Your task to perform on an android device: make emails show in primary in the gmail app Image 0: 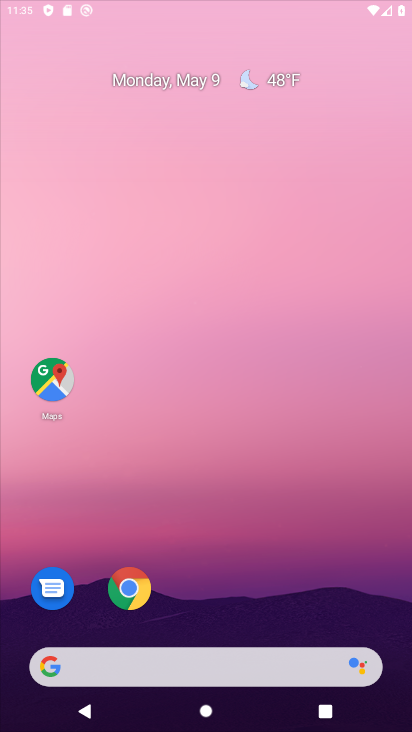
Step 0: drag from (227, 555) to (218, 273)
Your task to perform on an android device: make emails show in primary in the gmail app Image 1: 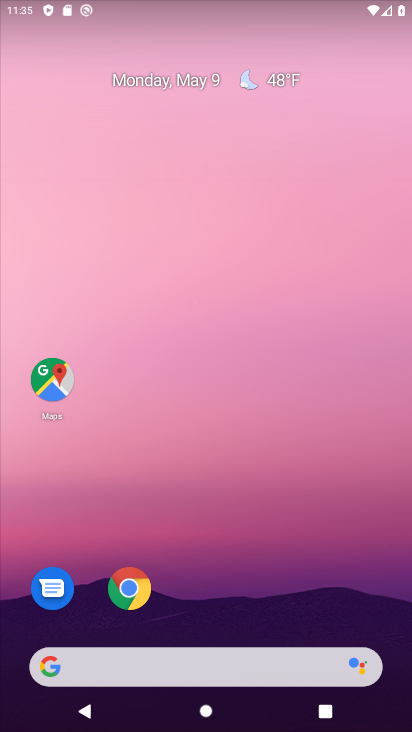
Step 1: drag from (259, 578) to (244, 269)
Your task to perform on an android device: make emails show in primary in the gmail app Image 2: 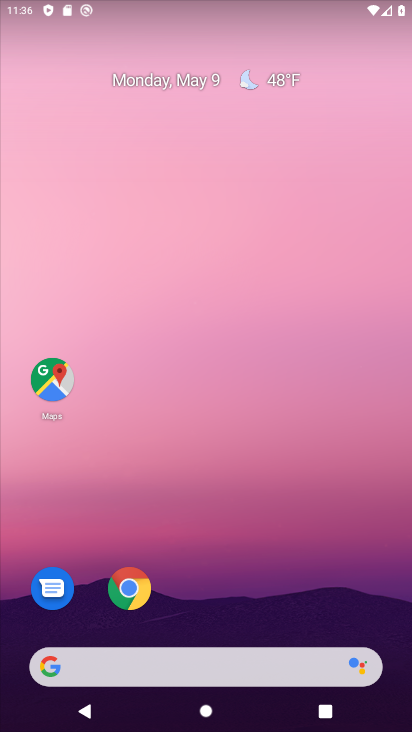
Step 2: drag from (252, 612) to (213, 246)
Your task to perform on an android device: make emails show in primary in the gmail app Image 3: 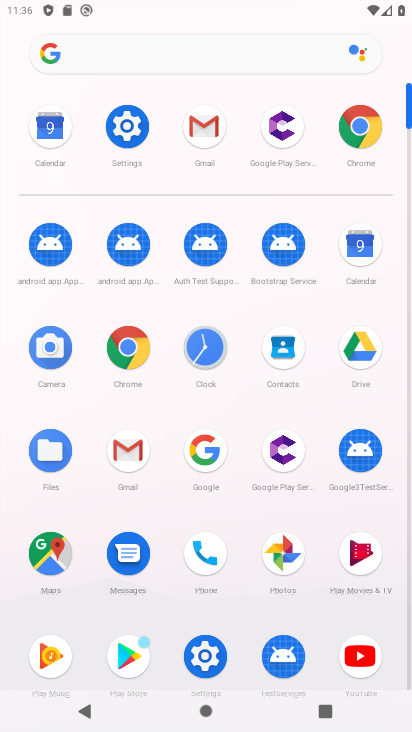
Step 3: click (207, 123)
Your task to perform on an android device: make emails show in primary in the gmail app Image 4: 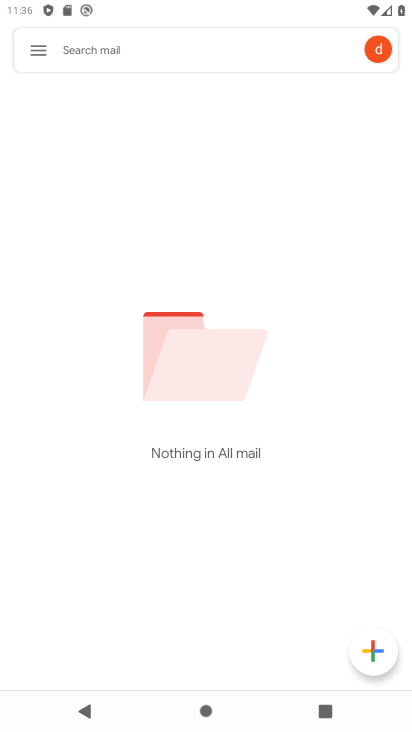
Step 4: click (47, 41)
Your task to perform on an android device: make emails show in primary in the gmail app Image 5: 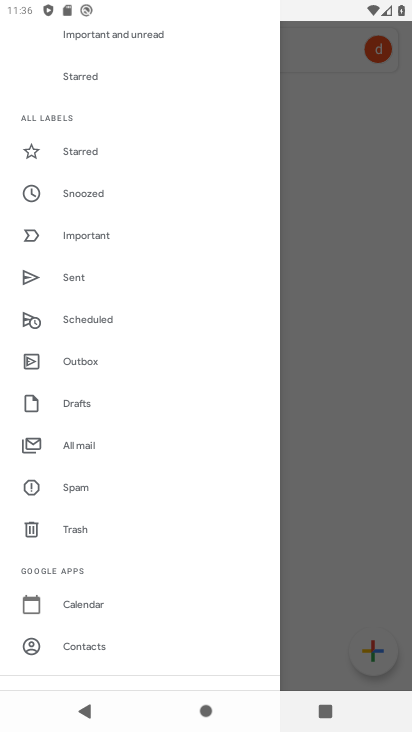
Step 5: drag from (124, 162) to (112, 606)
Your task to perform on an android device: make emails show in primary in the gmail app Image 6: 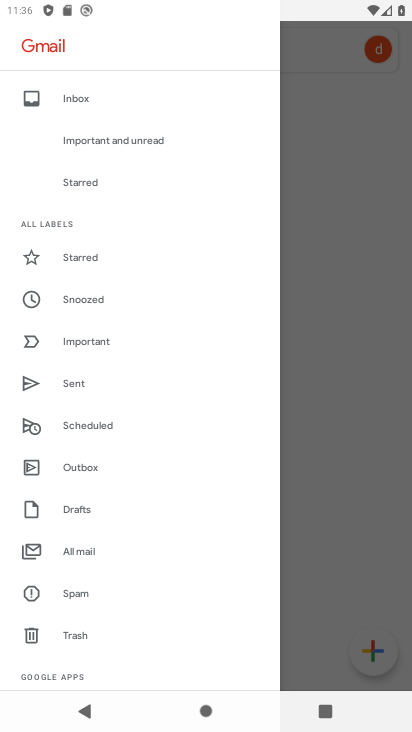
Step 6: drag from (56, 615) to (167, 167)
Your task to perform on an android device: make emails show in primary in the gmail app Image 7: 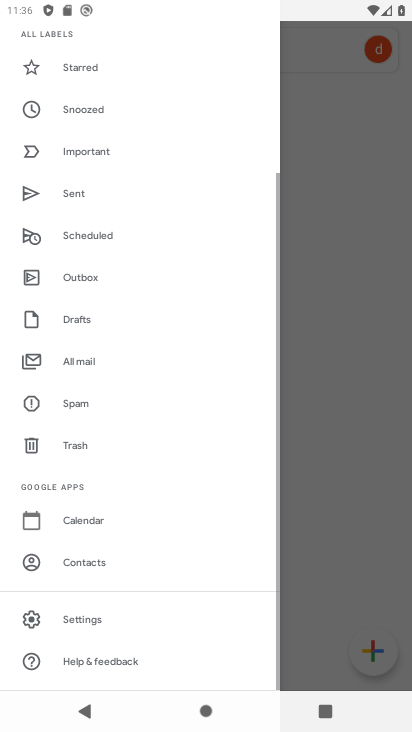
Step 7: click (91, 610)
Your task to perform on an android device: make emails show in primary in the gmail app Image 8: 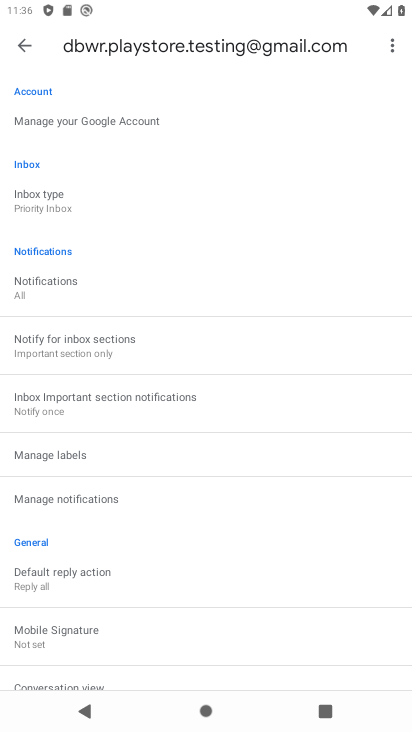
Step 8: task complete